Your task to perform on an android device: turn on javascript in the chrome app Image 0: 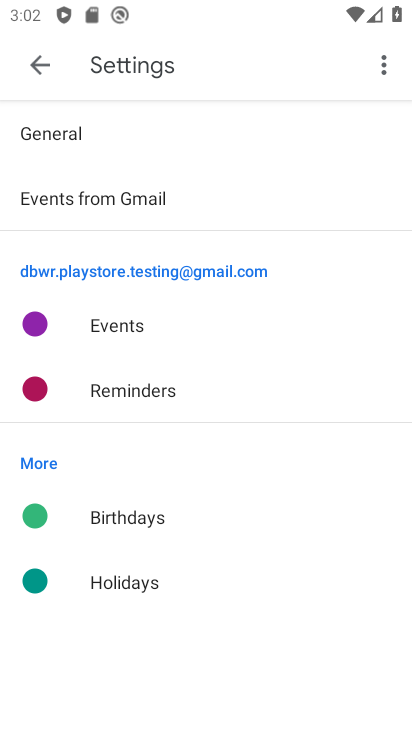
Step 0: press home button
Your task to perform on an android device: turn on javascript in the chrome app Image 1: 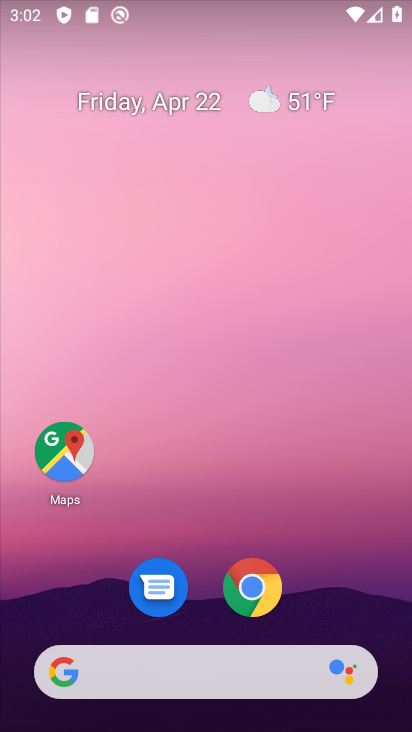
Step 1: click (241, 590)
Your task to perform on an android device: turn on javascript in the chrome app Image 2: 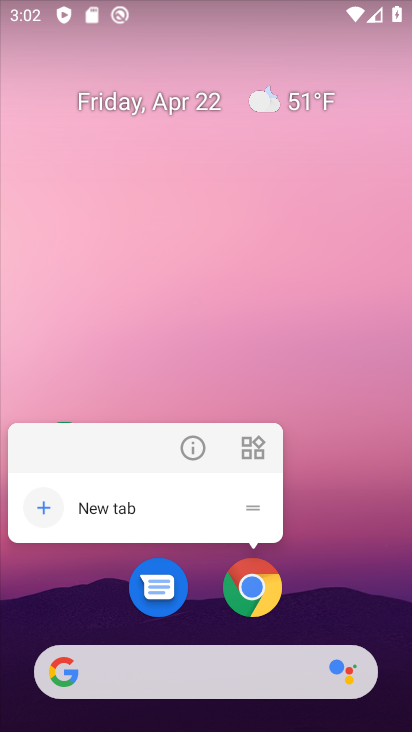
Step 2: click (188, 452)
Your task to perform on an android device: turn on javascript in the chrome app Image 3: 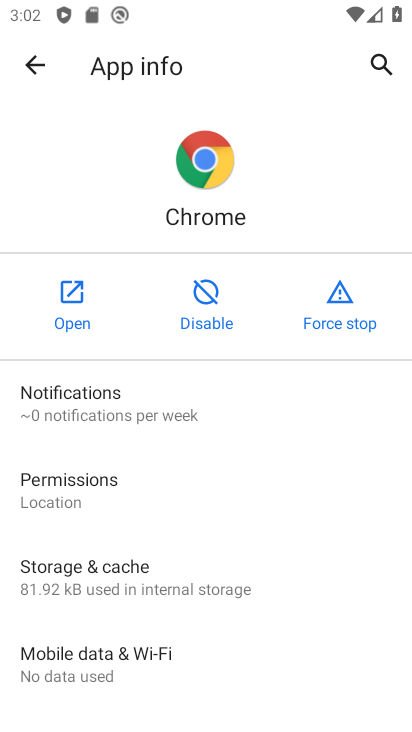
Step 3: click (67, 294)
Your task to perform on an android device: turn on javascript in the chrome app Image 4: 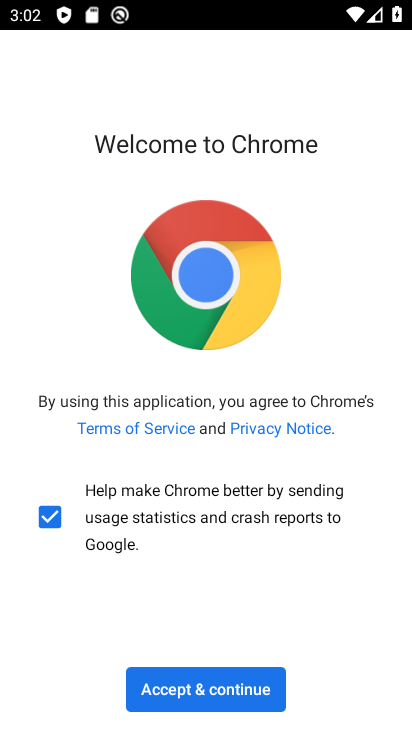
Step 4: click (195, 678)
Your task to perform on an android device: turn on javascript in the chrome app Image 5: 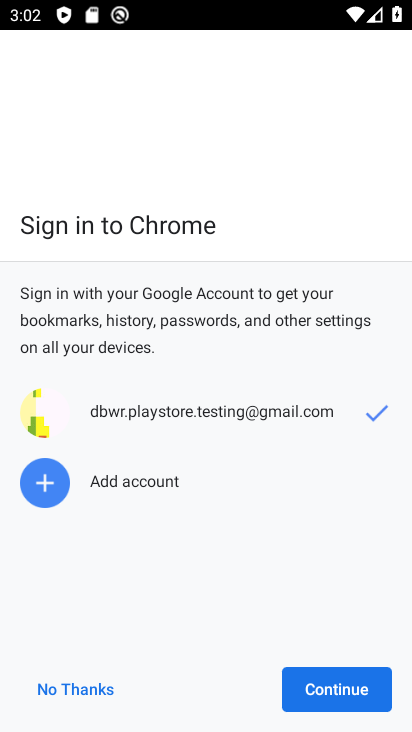
Step 5: click (62, 695)
Your task to perform on an android device: turn on javascript in the chrome app Image 6: 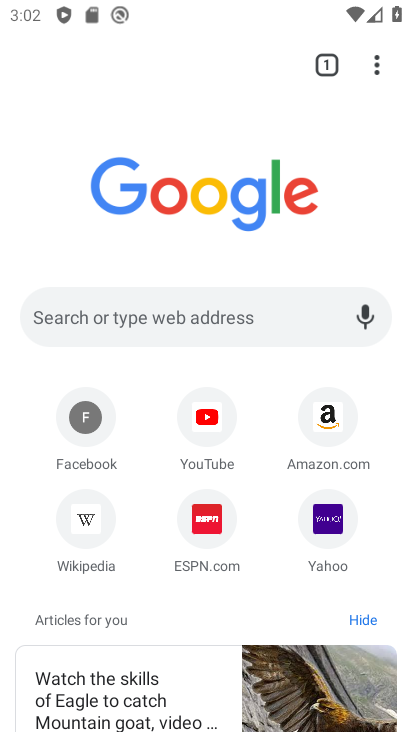
Step 6: click (378, 60)
Your task to perform on an android device: turn on javascript in the chrome app Image 7: 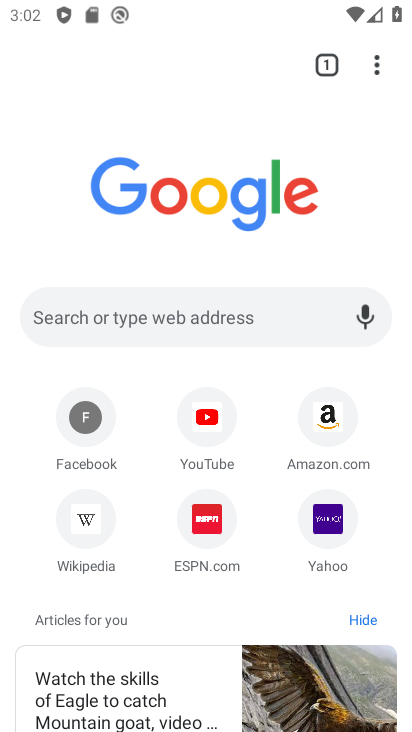
Step 7: click (379, 64)
Your task to perform on an android device: turn on javascript in the chrome app Image 8: 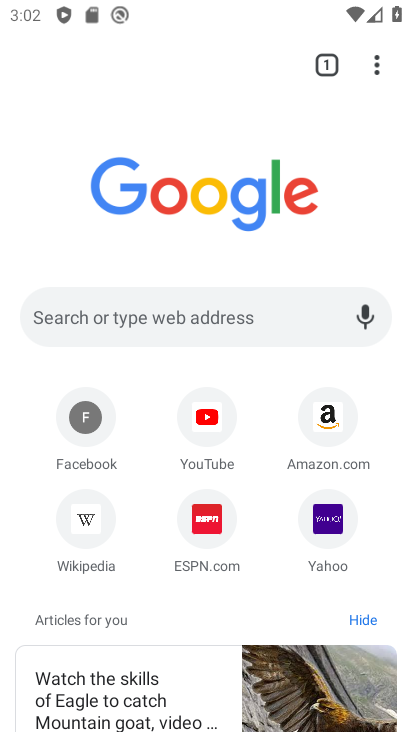
Step 8: click (375, 71)
Your task to perform on an android device: turn on javascript in the chrome app Image 9: 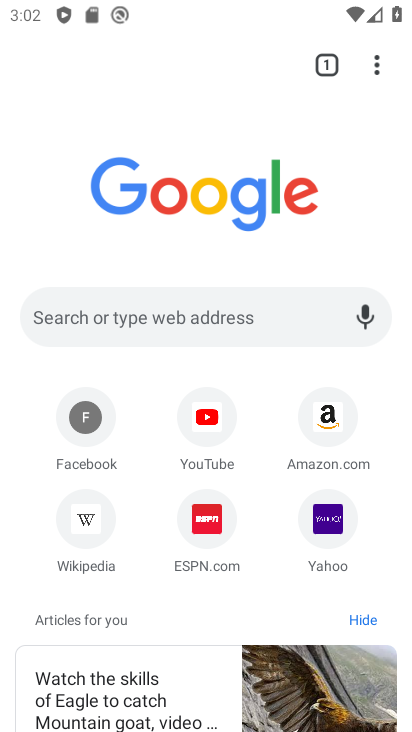
Step 9: click (372, 63)
Your task to perform on an android device: turn on javascript in the chrome app Image 10: 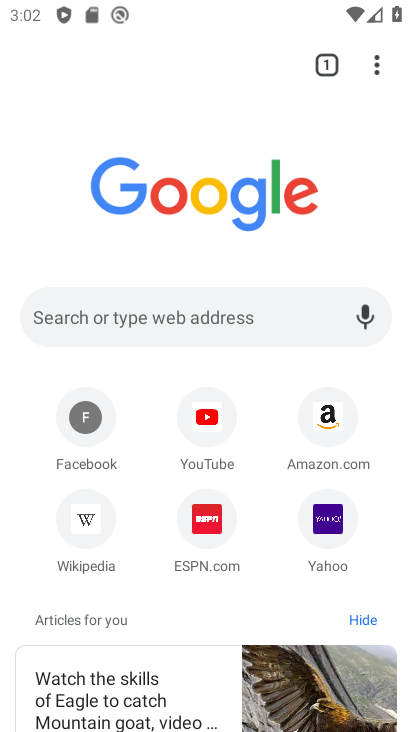
Step 10: click (365, 64)
Your task to perform on an android device: turn on javascript in the chrome app Image 11: 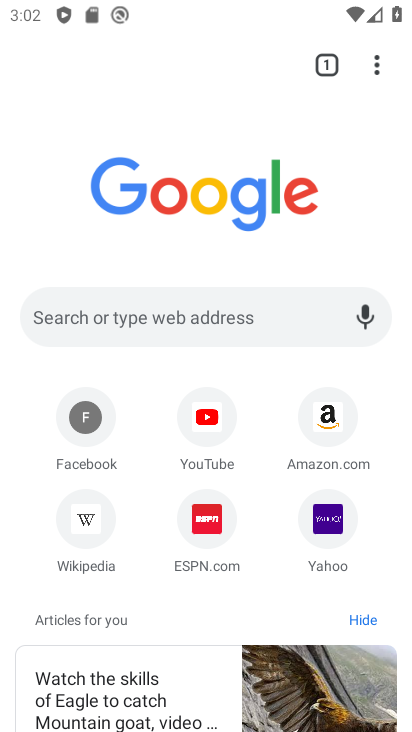
Step 11: click (365, 64)
Your task to perform on an android device: turn on javascript in the chrome app Image 12: 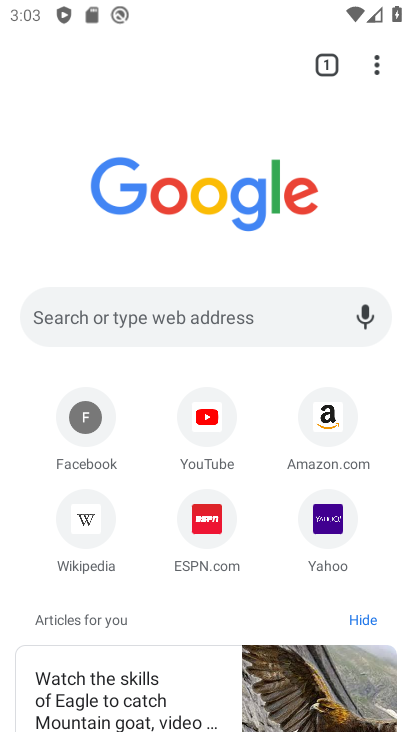
Step 12: click (365, 64)
Your task to perform on an android device: turn on javascript in the chrome app Image 13: 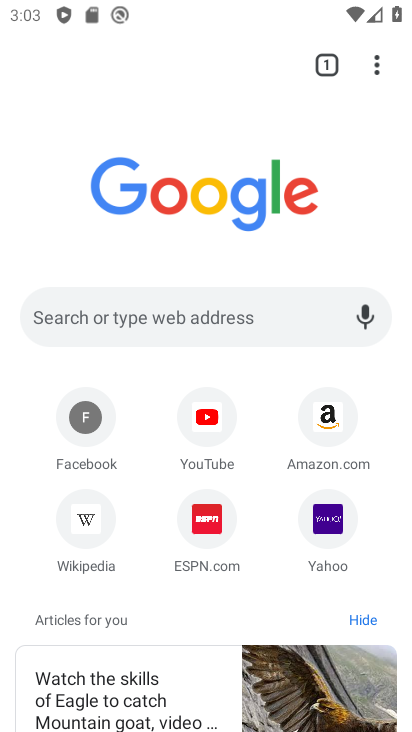
Step 13: click (365, 64)
Your task to perform on an android device: turn on javascript in the chrome app Image 14: 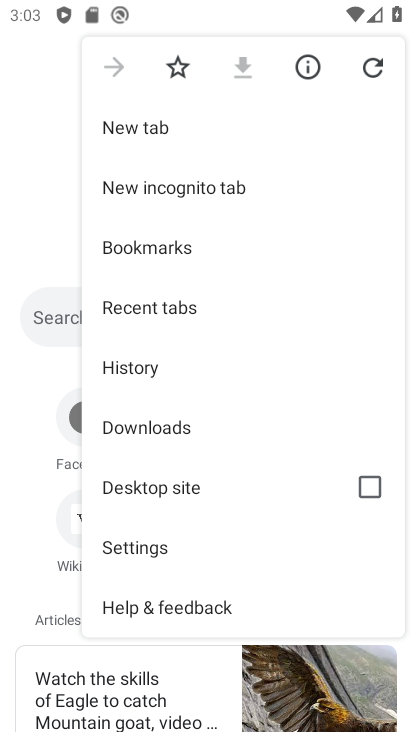
Step 14: drag from (181, 577) to (277, 199)
Your task to perform on an android device: turn on javascript in the chrome app Image 15: 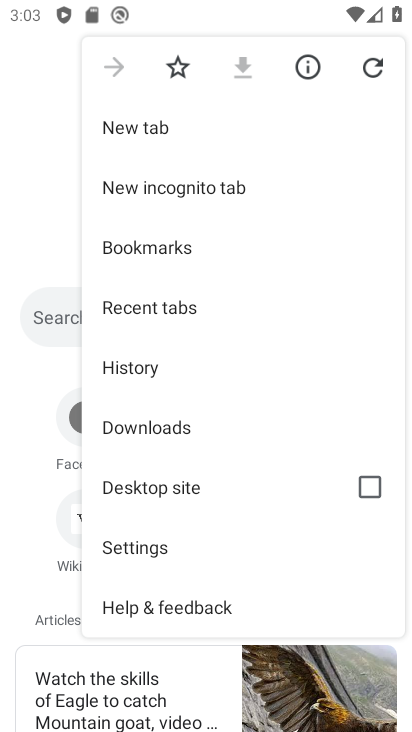
Step 15: click (150, 543)
Your task to perform on an android device: turn on javascript in the chrome app Image 16: 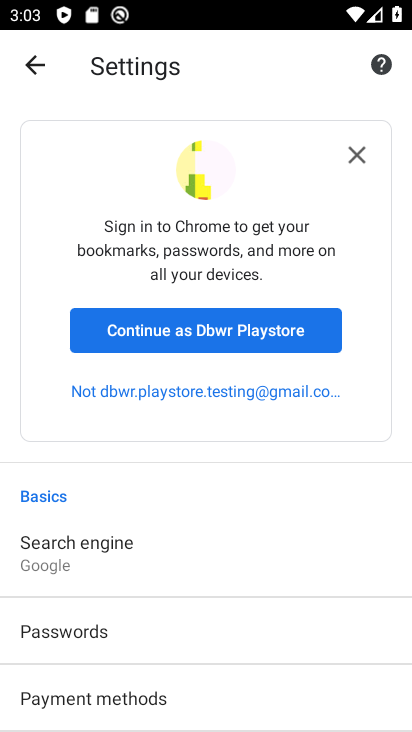
Step 16: drag from (111, 660) to (216, 202)
Your task to perform on an android device: turn on javascript in the chrome app Image 17: 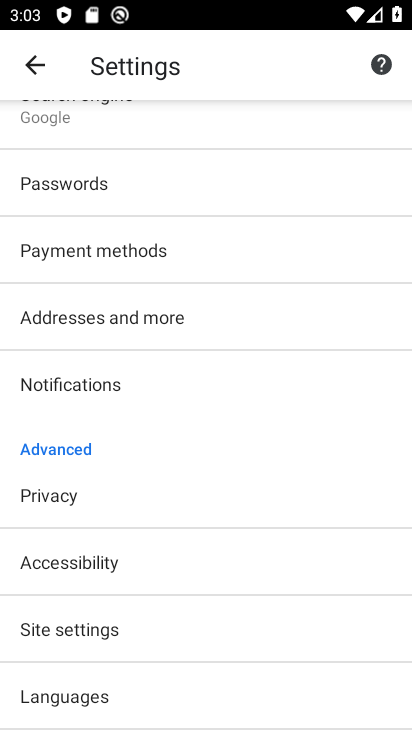
Step 17: click (84, 630)
Your task to perform on an android device: turn on javascript in the chrome app Image 18: 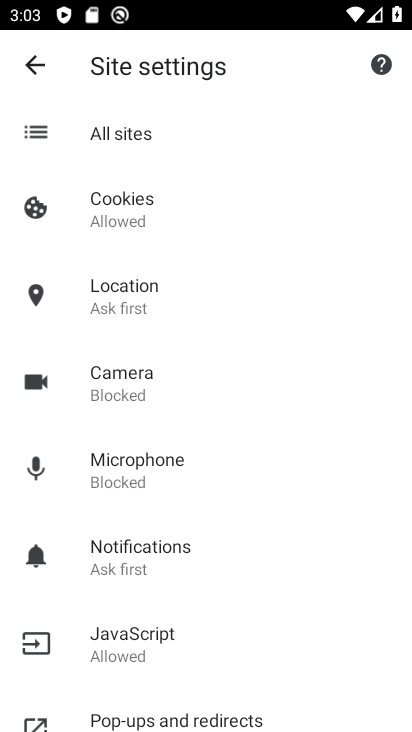
Step 18: click (168, 645)
Your task to perform on an android device: turn on javascript in the chrome app Image 19: 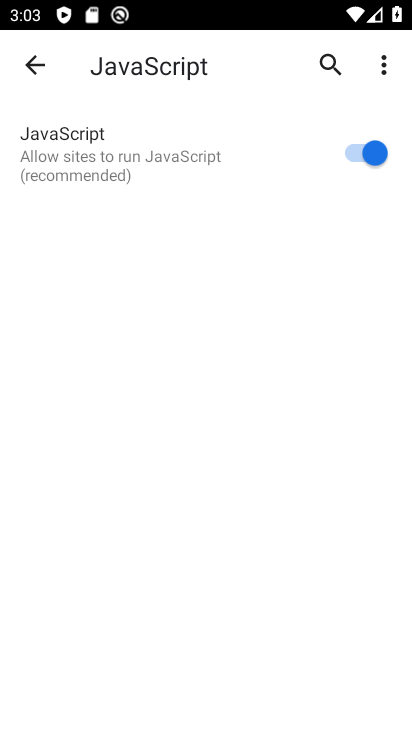
Step 19: task complete